Your task to perform on an android device: Search for bose soundlink mini on newegg.com, select the first entry, and add it to the cart. Image 0: 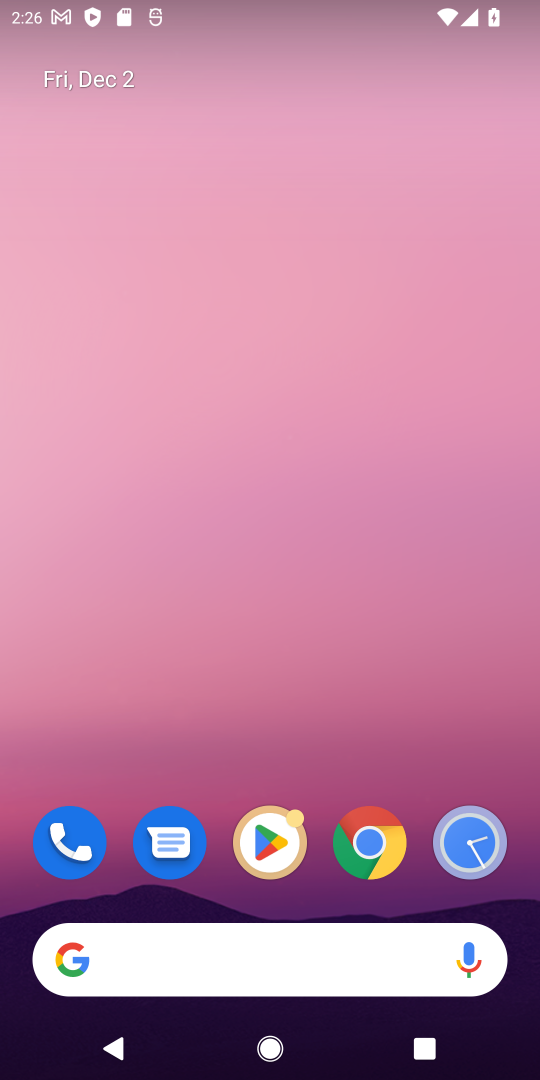
Step 0: task complete